Your task to perform on an android device: Open wifi settings Image 0: 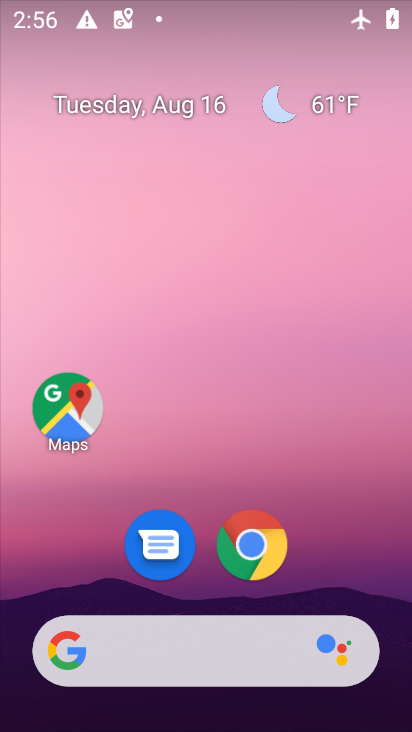
Step 0: drag from (189, 520) to (194, 58)
Your task to perform on an android device: Open wifi settings Image 1: 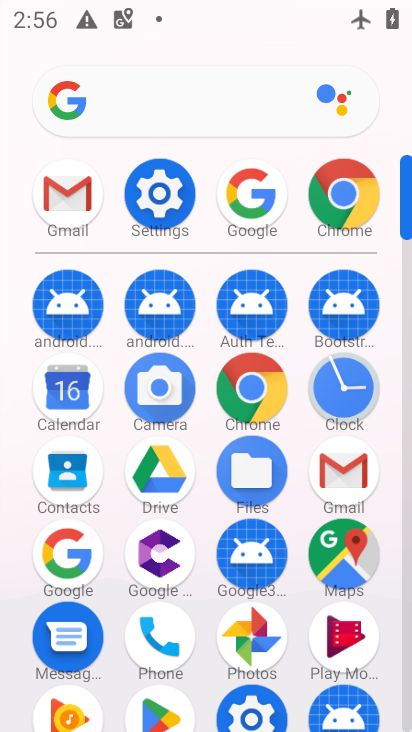
Step 1: click (154, 187)
Your task to perform on an android device: Open wifi settings Image 2: 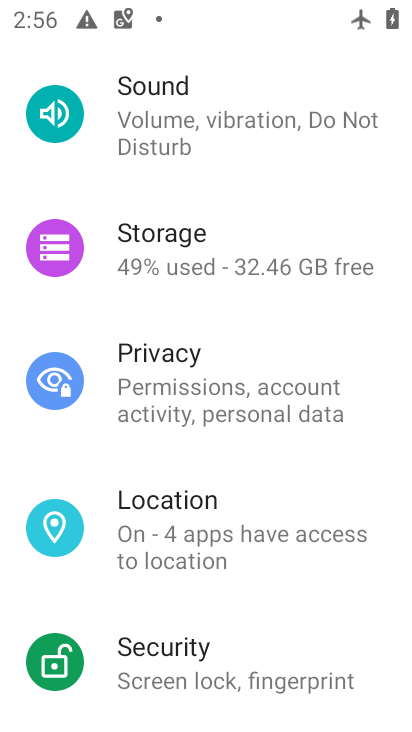
Step 2: drag from (199, 105) to (263, 601)
Your task to perform on an android device: Open wifi settings Image 3: 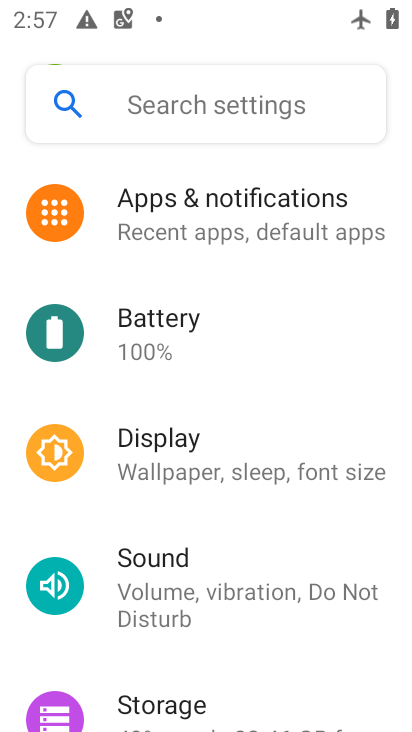
Step 3: drag from (225, 470) to (231, 568)
Your task to perform on an android device: Open wifi settings Image 4: 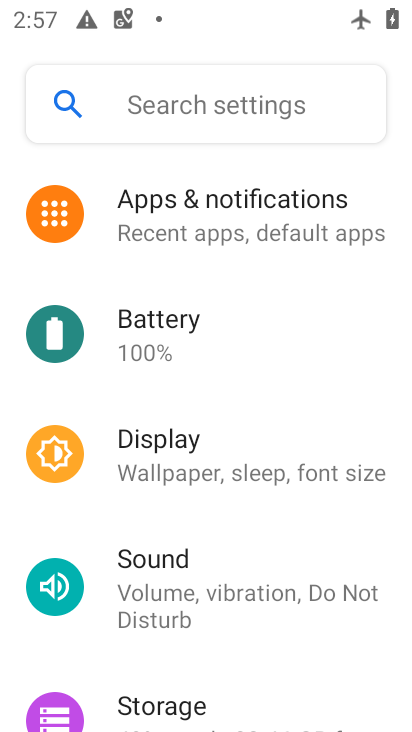
Step 4: click (177, 550)
Your task to perform on an android device: Open wifi settings Image 5: 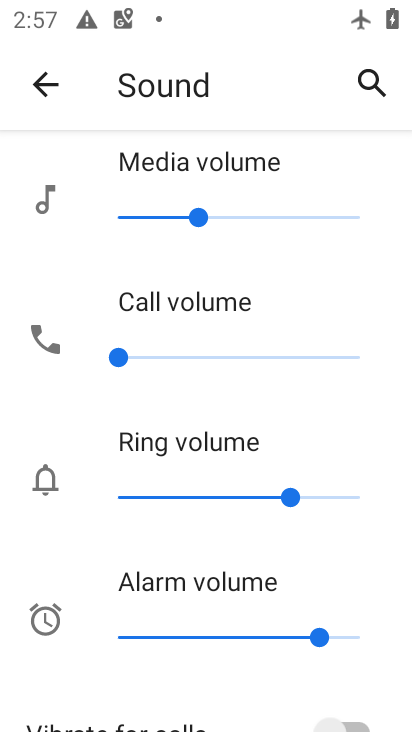
Step 5: click (31, 85)
Your task to perform on an android device: Open wifi settings Image 6: 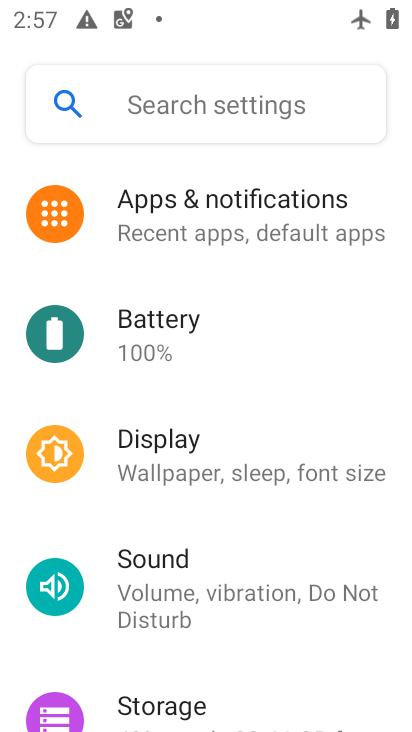
Step 6: drag from (163, 186) to (176, 327)
Your task to perform on an android device: Open wifi settings Image 7: 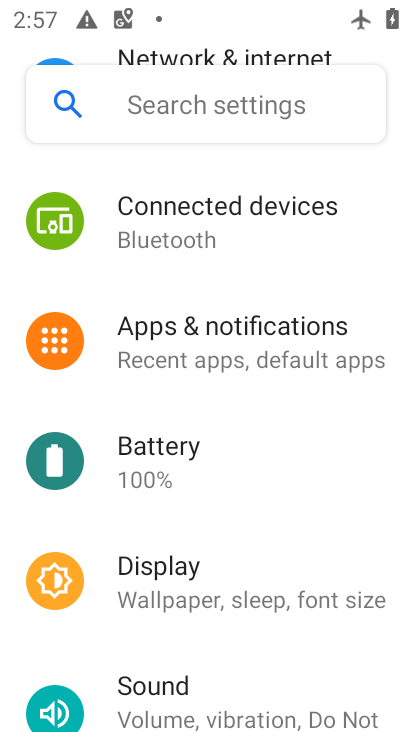
Step 7: drag from (161, 187) to (181, 396)
Your task to perform on an android device: Open wifi settings Image 8: 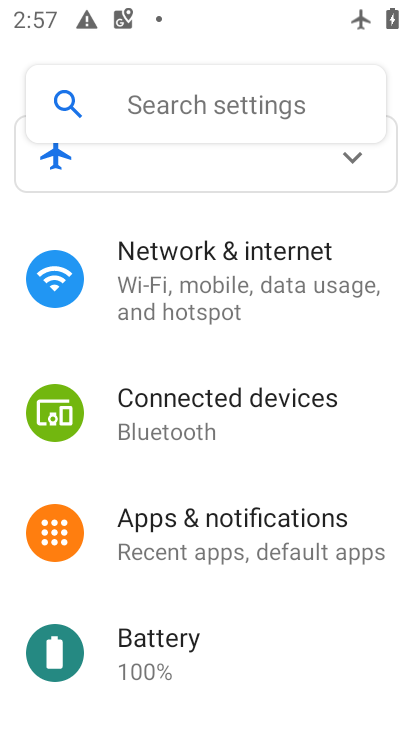
Step 8: click (159, 306)
Your task to perform on an android device: Open wifi settings Image 9: 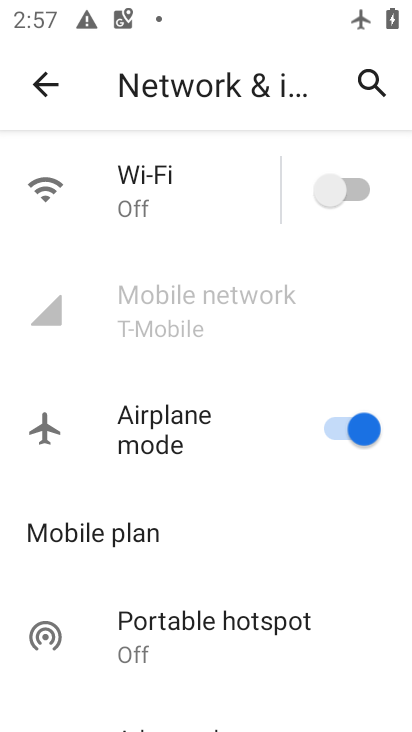
Step 9: click (333, 417)
Your task to perform on an android device: Open wifi settings Image 10: 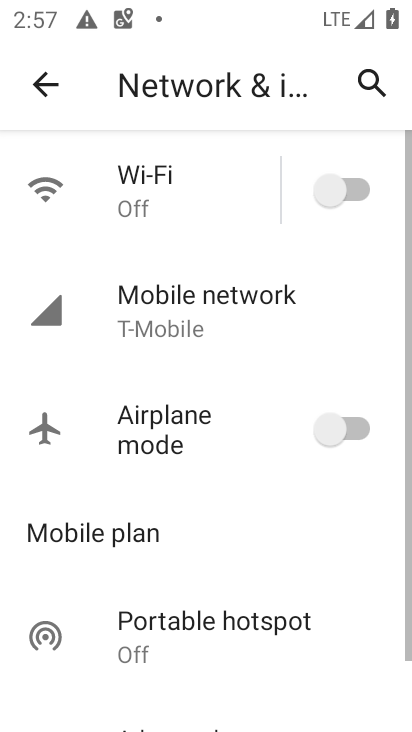
Step 10: click (358, 186)
Your task to perform on an android device: Open wifi settings Image 11: 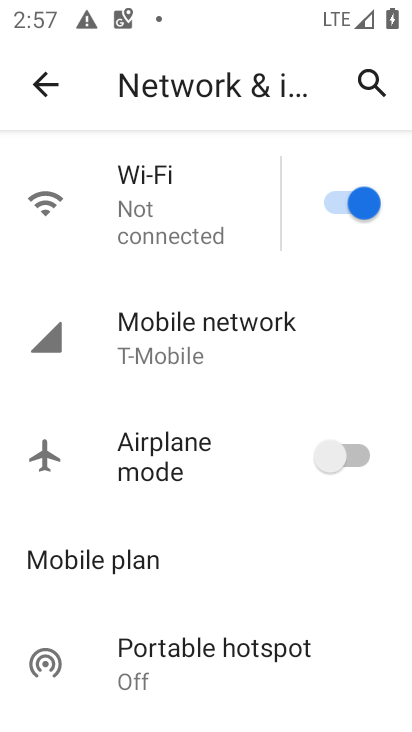
Step 11: click (157, 203)
Your task to perform on an android device: Open wifi settings Image 12: 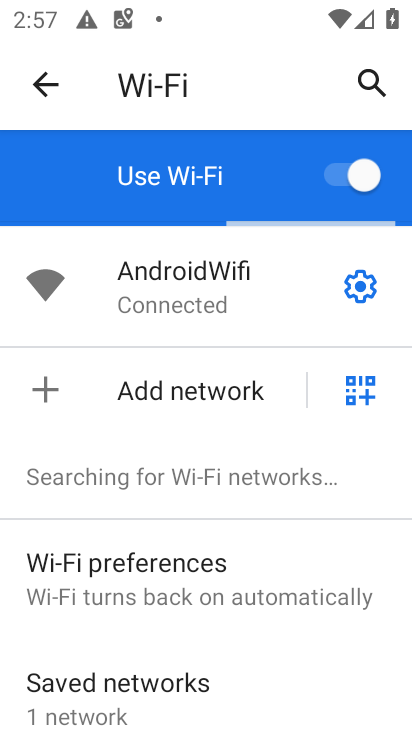
Step 12: click (360, 272)
Your task to perform on an android device: Open wifi settings Image 13: 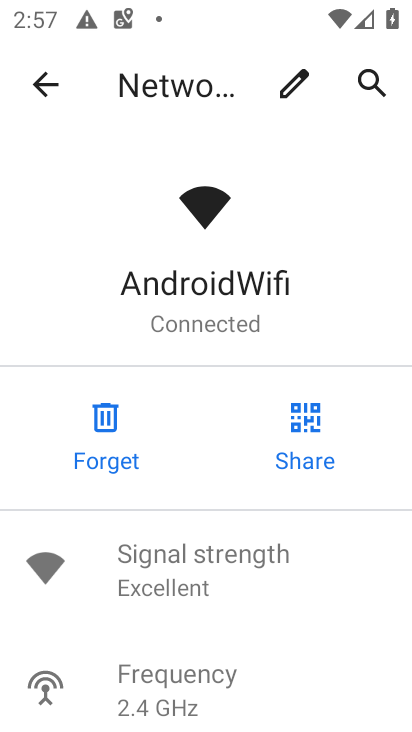
Step 13: task complete